Your task to perform on an android device: What's the news in Brunei? Image 0: 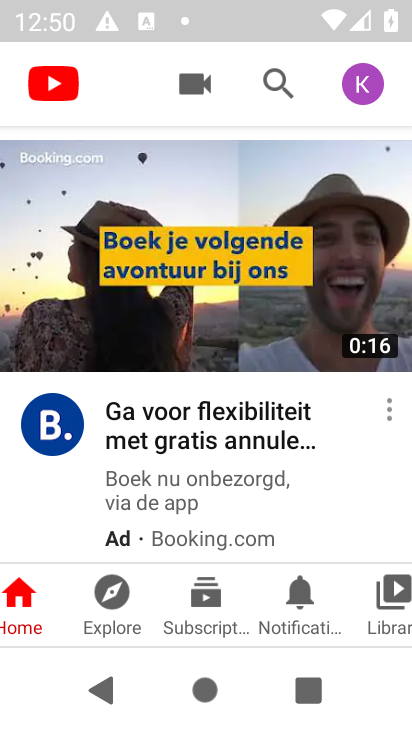
Step 0: press home button
Your task to perform on an android device: What's the news in Brunei? Image 1: 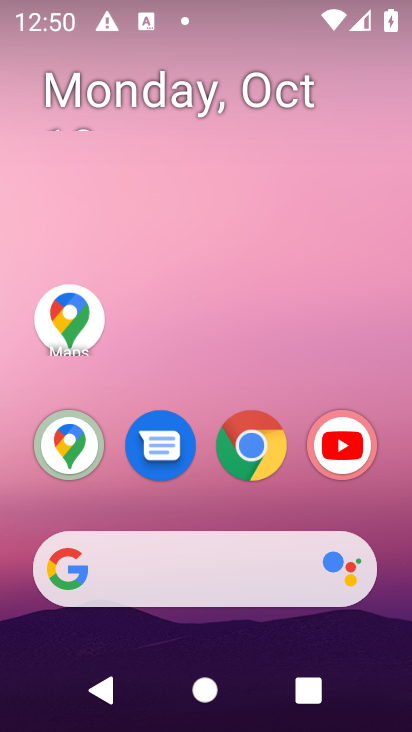
Step 1: click (81, 565)
Your task to perform on an android device: What's the news in Brunei? Image 2: 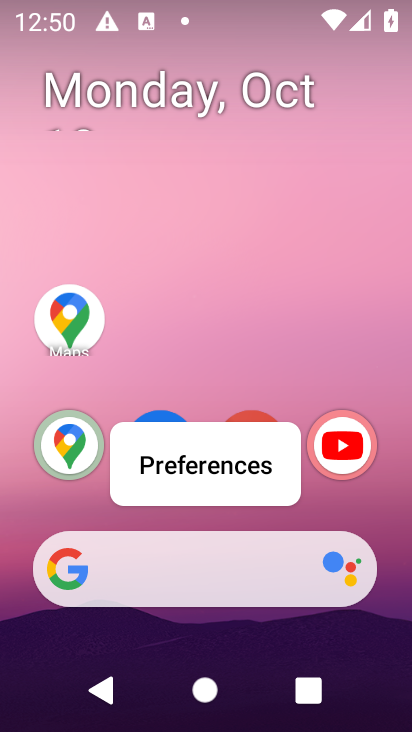
Step 2: click (60, 572)
Your task to perform on an android device: What's the news in Brunei? Image 3: 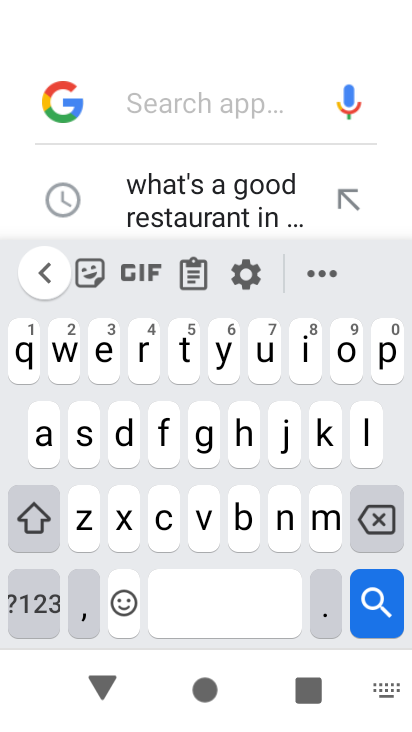
Step 3: click (206, 90)
Your task to perform on an android device: What's the news in Brunei? Image 4: 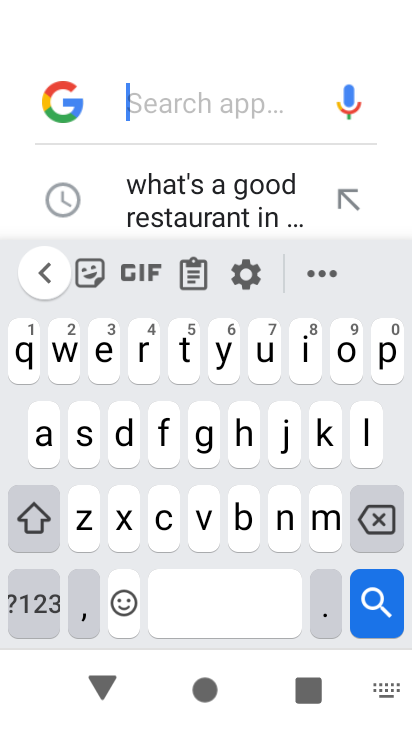
Step 4: type "whats the news in brunei?"
Your task to perform on an android device: What's the news in Brunei? Image 5: 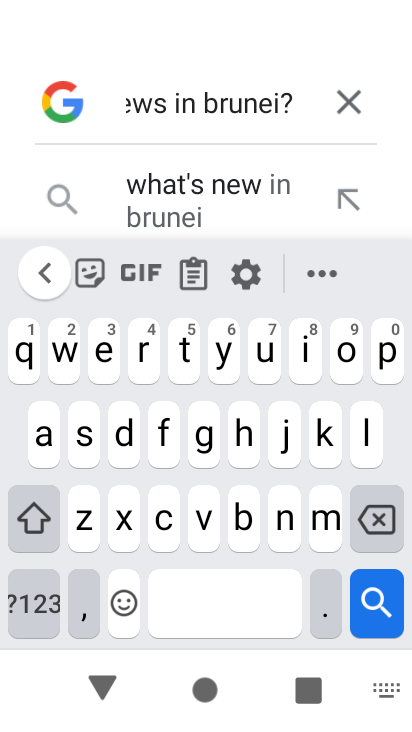
Step 5: click (179, 191)
Your task to perform on an android device: What's the news in Brunei? Image 6: 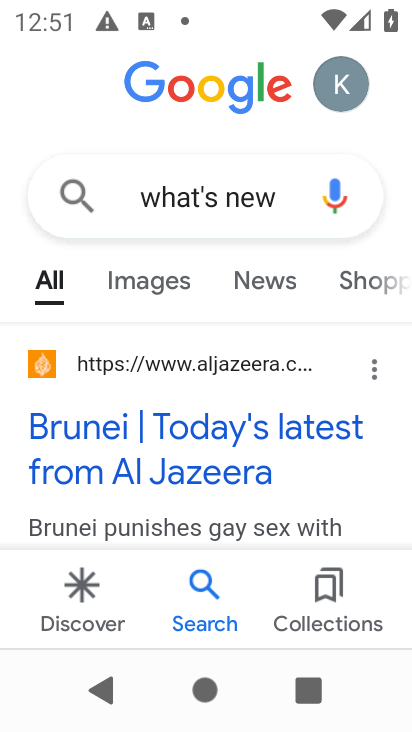
Step 6: task complete